Your task to perform on an android device: manage bookmarks in the chrome app Image 0: 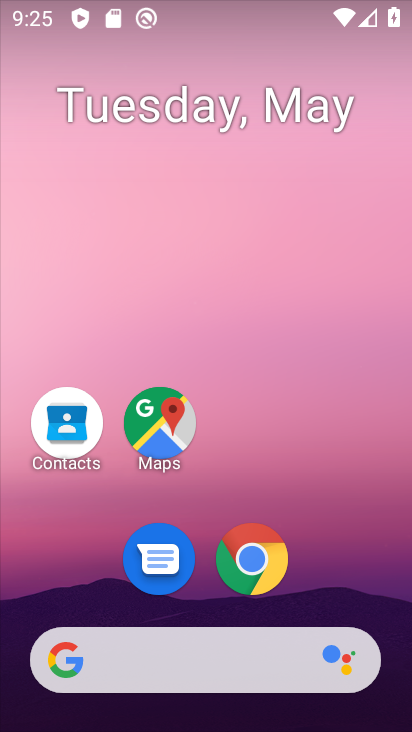
Step 0: click (241, 583)
Your task to perform on an android device: manage bookmarks in the chrome app Image 1: 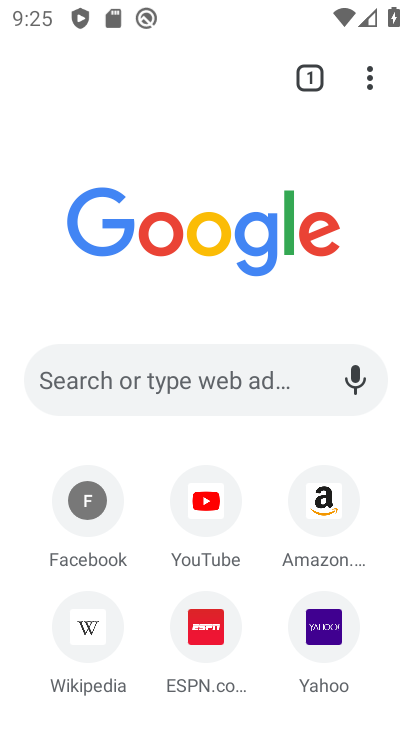
Step 1: click (379, 94)
Your task to perform on an android device: manage bookmarks in the chrome app Image 2: 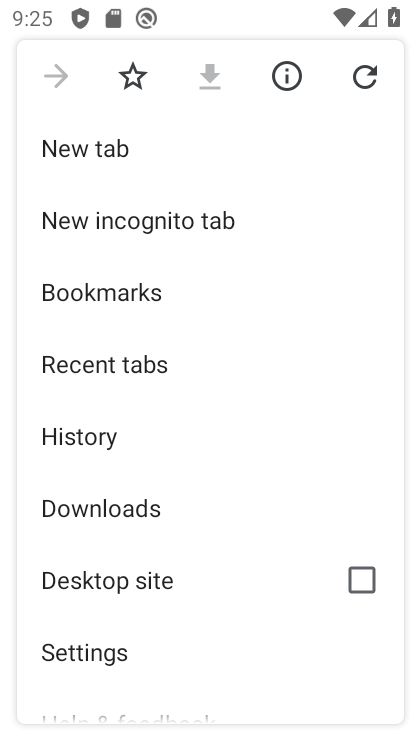
Step 2: click (150, 310)
Your task to perform on an android device: manage bookmarks in the chrome app Image 3: 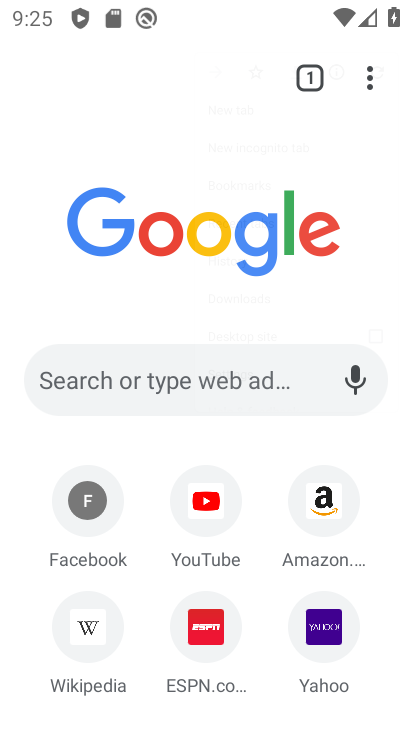
Step 3: click (150, 310)
Your task to perform on an android device: manage bookmarks in the chrome app Image 4: 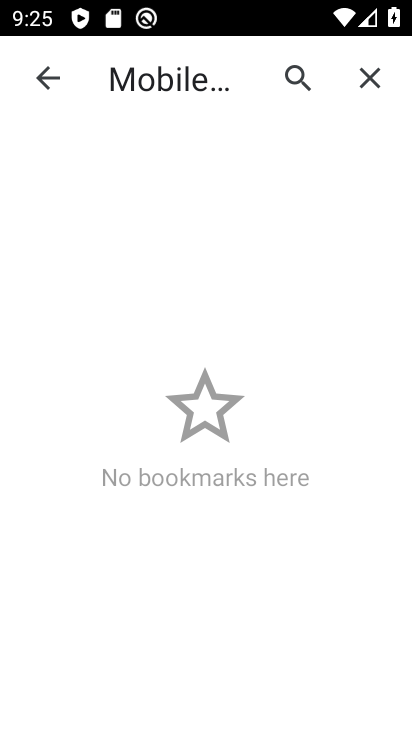
Step 4: task complete